Your task to perform on an android device: toggle airplane mode Image 0: 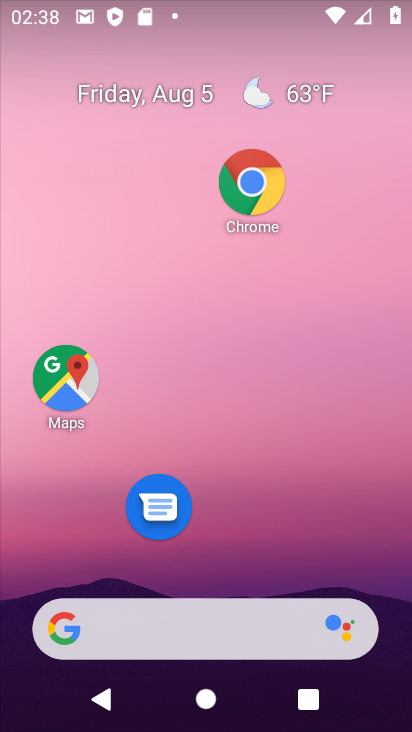
Step 0: drag from (219, 573) to (264, 1)
Your task to perform on an android device: toggle airplane mode Image 1: 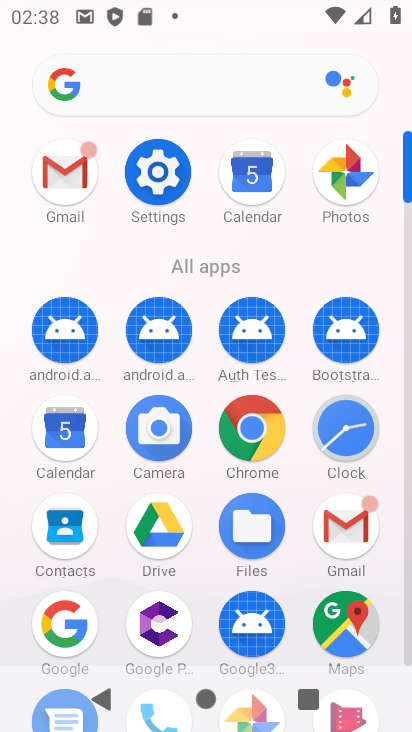
Step 1: click (168, 189)
Your task to perform on an android device: toggle airplane mode Image 2: 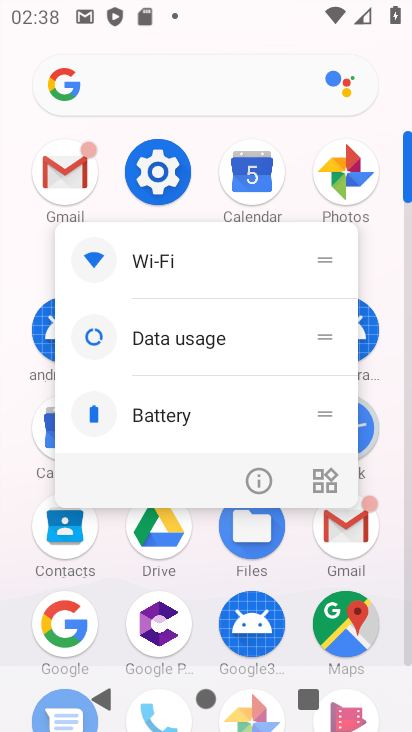
Step 2: click (170, 167)
Your task to perform on an android device: toggle airplane mode Image 3: 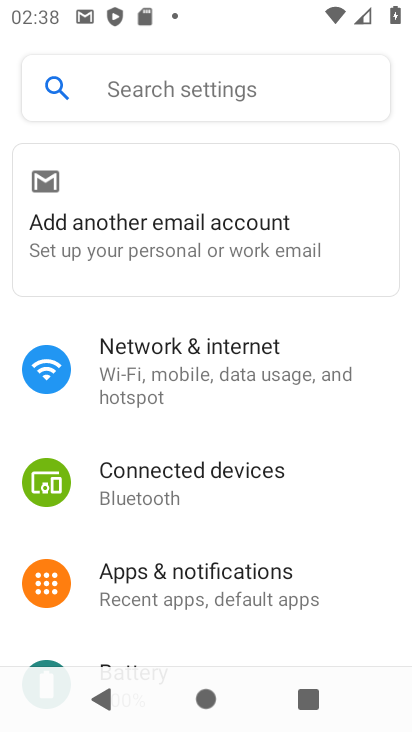
Step 3: click (150, 370)
Your task to perform on an android device: toggle airplane mode Image 4: 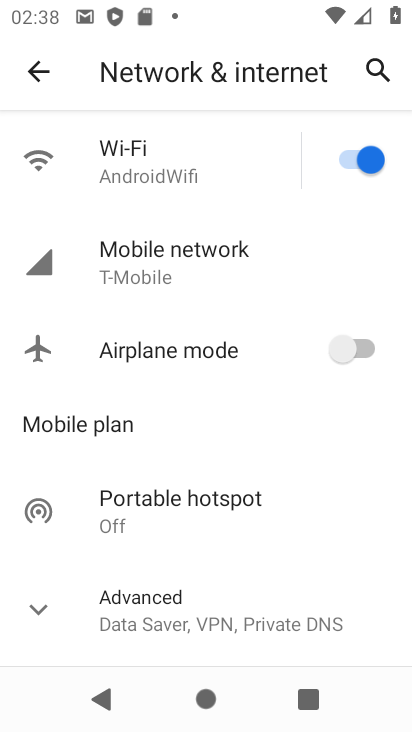
Step 4: click (381, 350)
Your task to perform on an android device: toggle airplane mode Image 5: 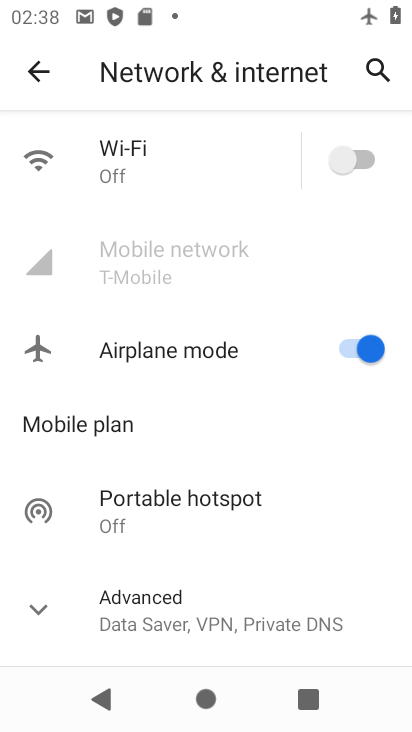
Step 5: task complete